Your task to perform on an android device: What's the weather going to be this weekend? Image 0: 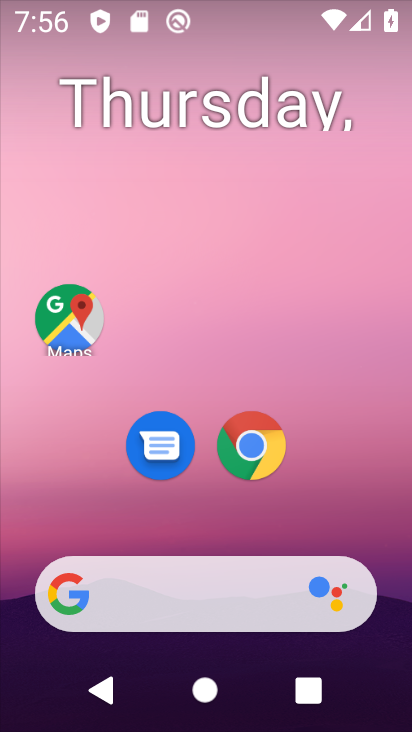
Step 0: drag from (124, 520) to (408, 172)
Your task to perform on an android device: What's the weather going to be this weekend? Image 1: 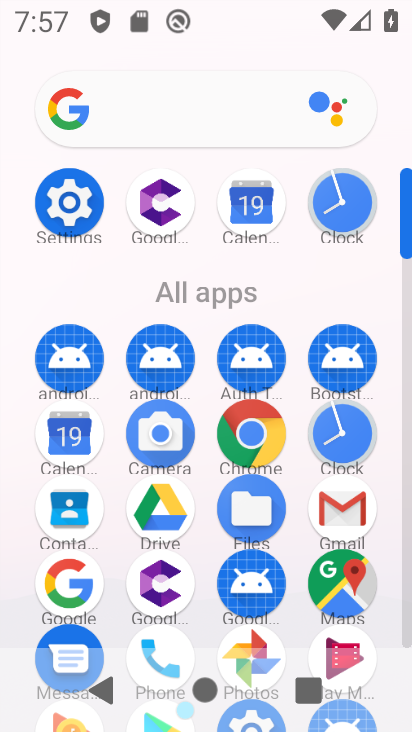
Step 1: drag from (48, 529) to (342, 108)
Your task to perform on an android device: What's the weather going to be this weekend? Image 2: 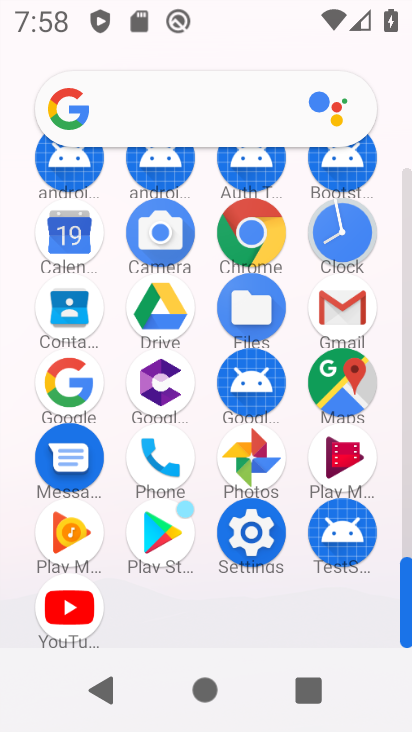
Step 2: drag from (271, 204) to (204, 622)
Your task to perform on an android device: What's the weather going to be this weekend? Image 3: 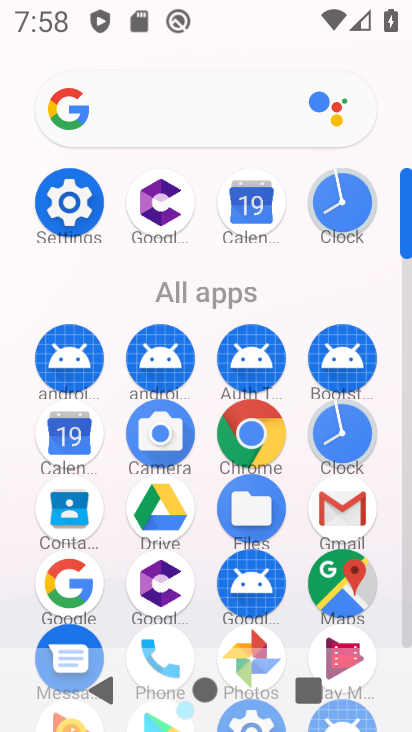
Step 3: click (80, 441)
Your task to perform on an android device: What's the weather going to be this weekend? Image 4: 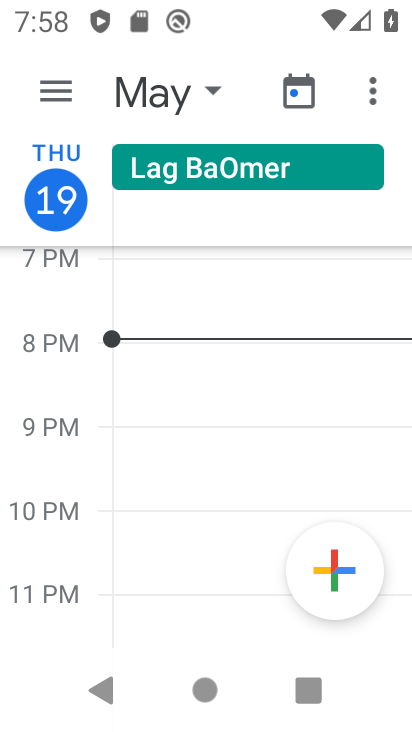
Step 4: click (139, 107)
Your task to perform on an android device: What's the weather going to be this weekend? Image 5: 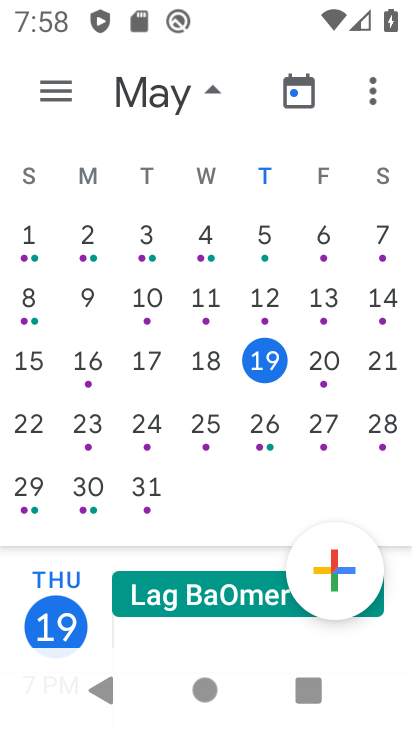
Step 5: click (370, 357)
Your task to perform on an android device: What's the weather going to be this weekend? Image 6: 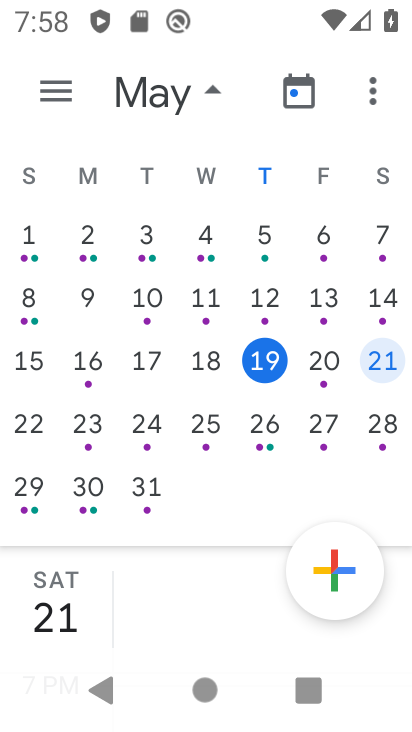
Step 6: click (32, 421)
Your task to perform on an android device: What's the weather going to be this weekend? Image 7: 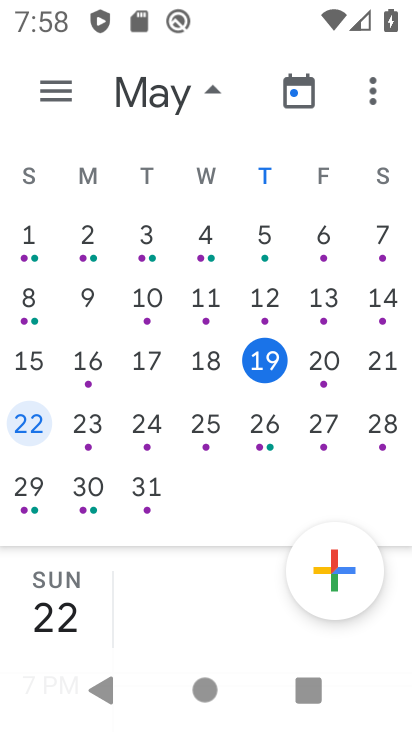
Step 7: task complete